Your task to perform on an android device: add a label to a message in the gmail app Image 0: 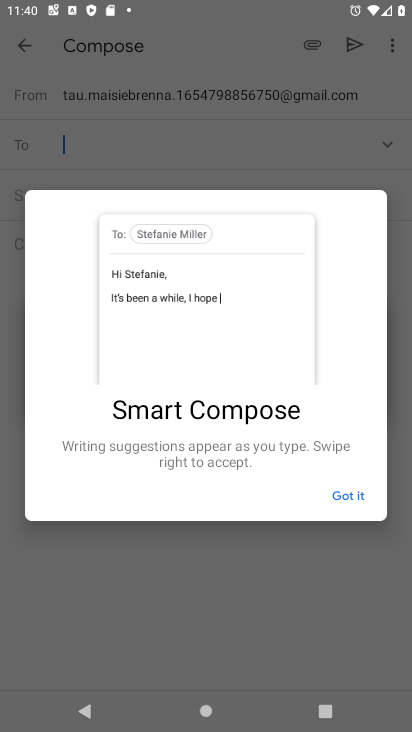
Step 0: click (355, 499)
Your task to perform on an android device: add a label to a message in the gmail app Image 1: 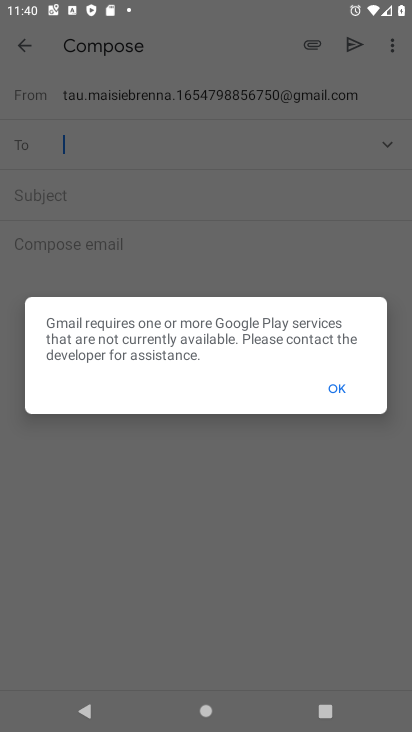
Step 1: click (342, 390)
Your task to perform on an android device: add a label to a message in the gmail app Image 2: 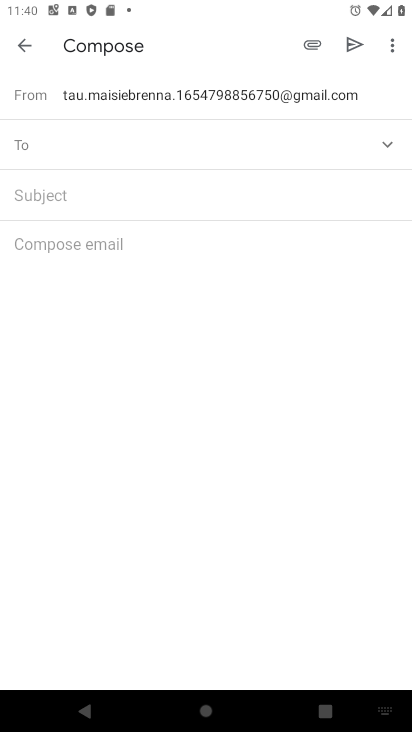
Step 2: click (18, 51)
Your task to perform on an android device: add a label to a message in the gmail app Image 3: 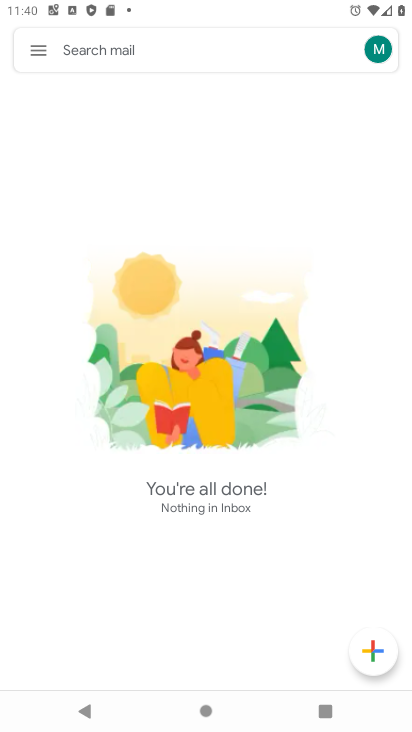
Step 3: click (36, 52)
Your task to perform on an android device: add a label to a message in the gmail app Image 4: 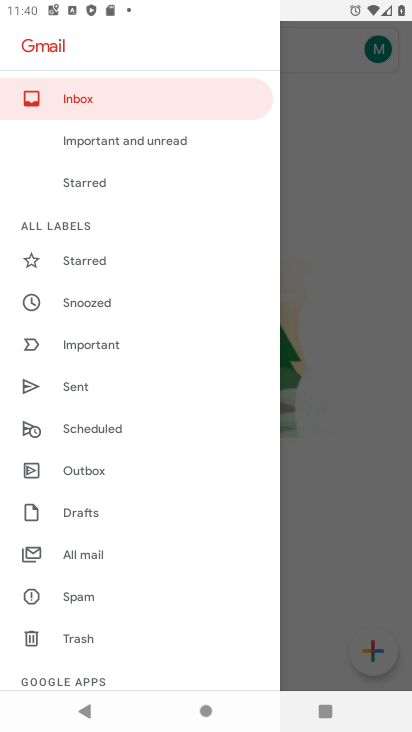
Step 4: click (108, 547)
Your task to perform on an android device: add a label to a message in the gmail app Image 5: 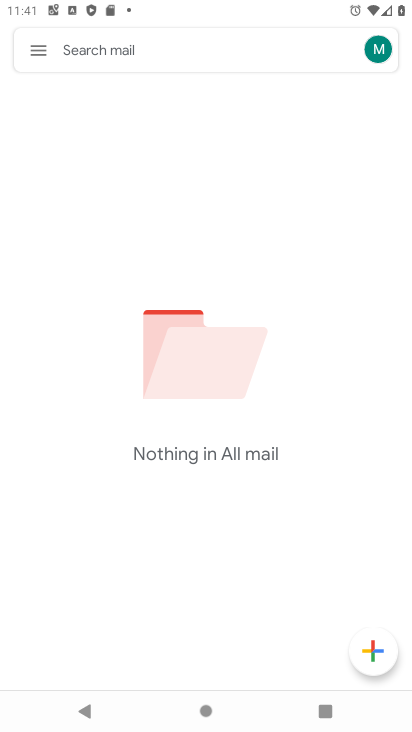
Step 5: task complete